Your task to perform on an android device: What's on my calendar tomorrow? Image 0: 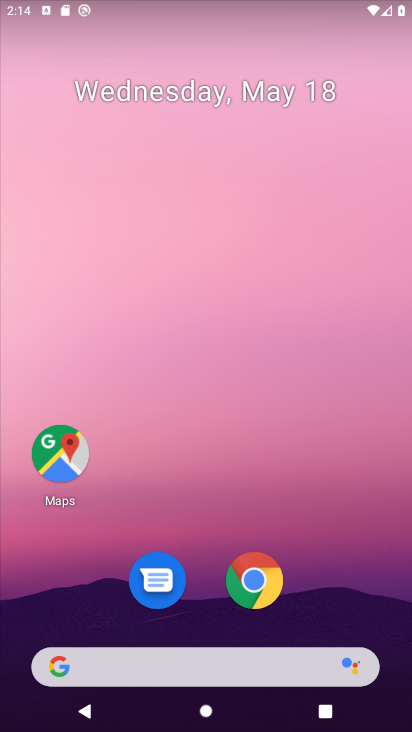
Step 0: click (376, 25)
Your task to perform on an android device: What's on my calendar tomorrow? Image 1: 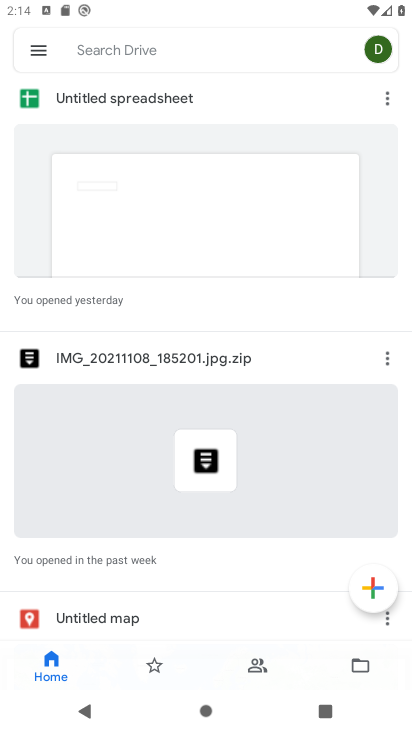
Step 1: drag from (245, 595) to (304, 117)
Your task to perform on an android device: What's on my calendar tomorrow? Image 2: 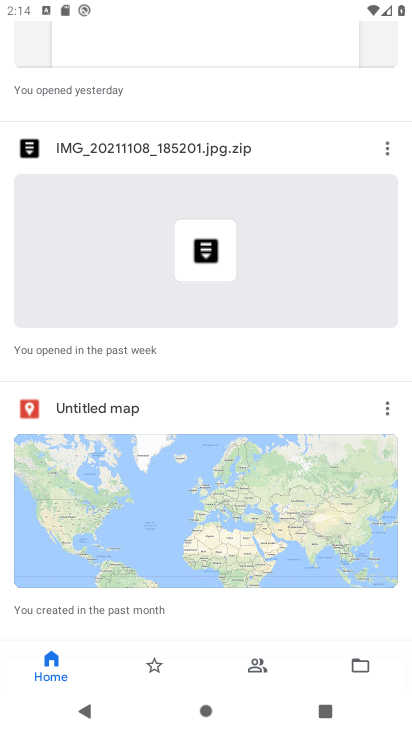
Step 2: drag from (259, 496) to (276, 104)
Your task to perform on an android device: What's on my calendar tomorrow? Image 3: 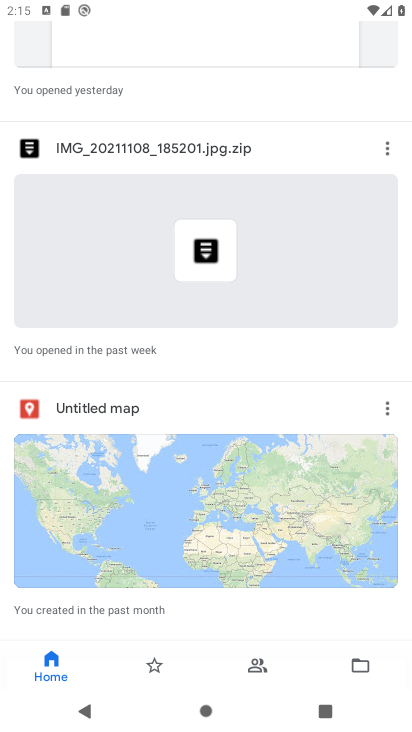
Step 3: press home button
Your task to perform on an android device: What's on my calendar tomorrow? Image 4: 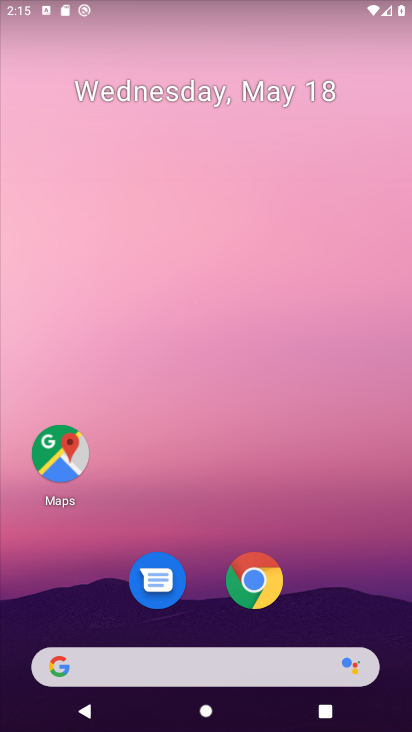
Step 4: drag from (222, 623) to (243, 203)
Your task to perform on an android device: What's on my calendar tomorrow? Image 5: 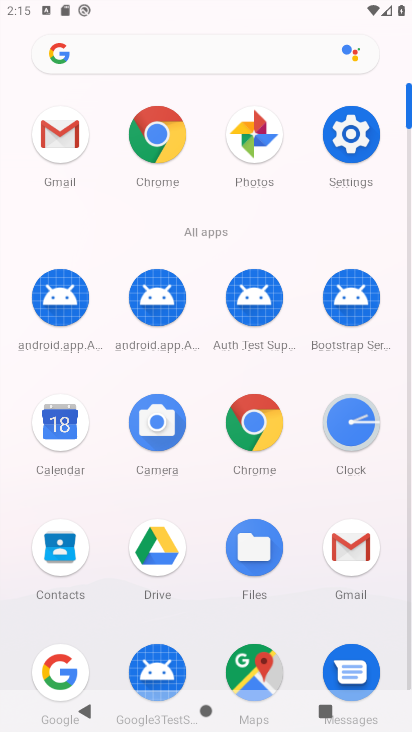
Step 5: click (64, 409)
Your task to perform on an android device: What's on my calendar tomorrow? Image 6: 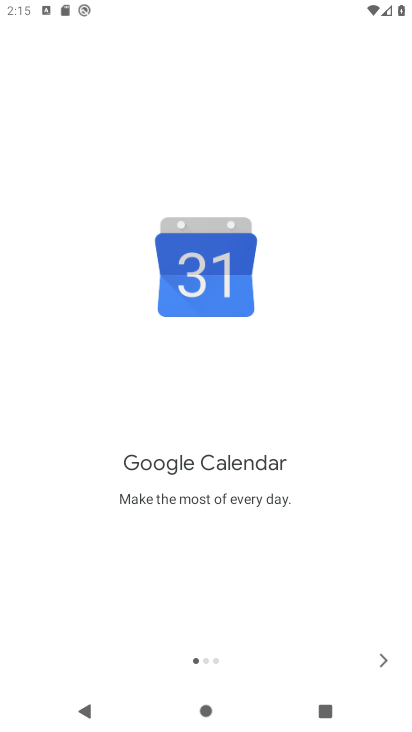
Step 6: click (383, 657)
Your task to perform on an android device: What's on my calendar tomorrow? Image 7: 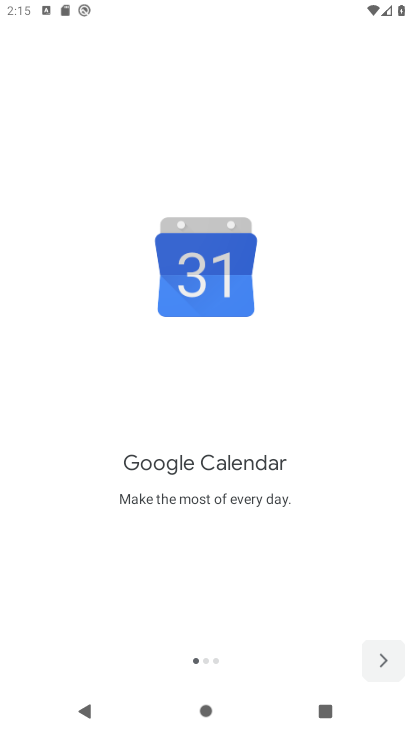
Step 7: click (383, 657)
Your task to perform on an android device: What's on my calendar tomorrow? Image 8: 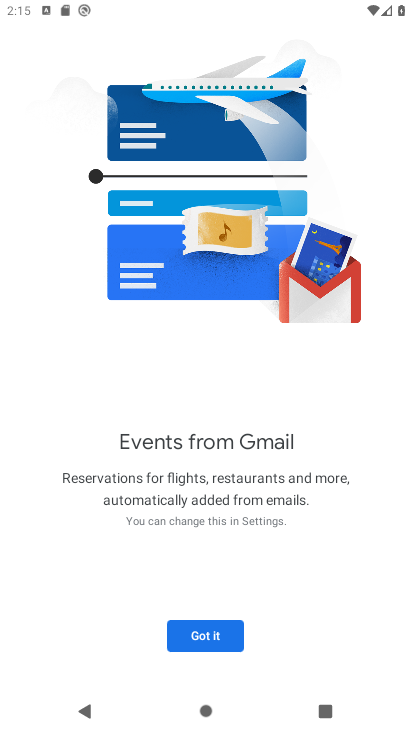
Step 8: click (383, 657)
Your task to perform on an android device: What's on my calendar tomorrow? Image 9: 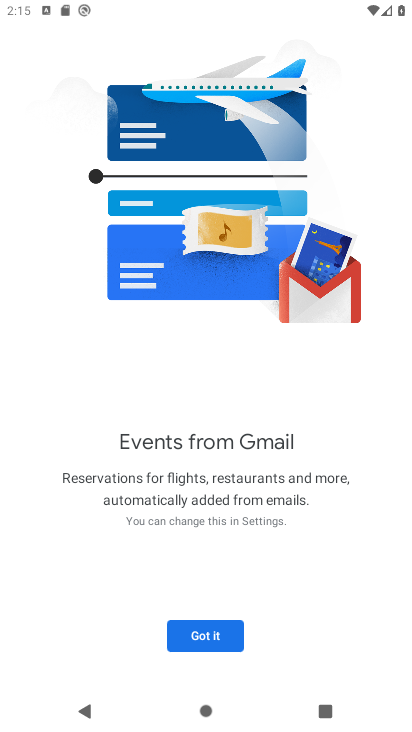
Step 9: click (200, 651)
Your task to perform on an android device: What's on my calendar tomorrow? Image 10: 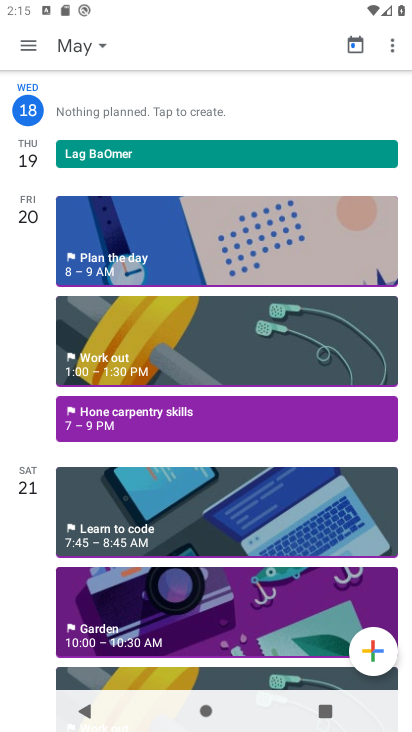
Step 10: click (87, 40)
Your task to perform on an android device: What's on my calendar tomorrow? Image 11: 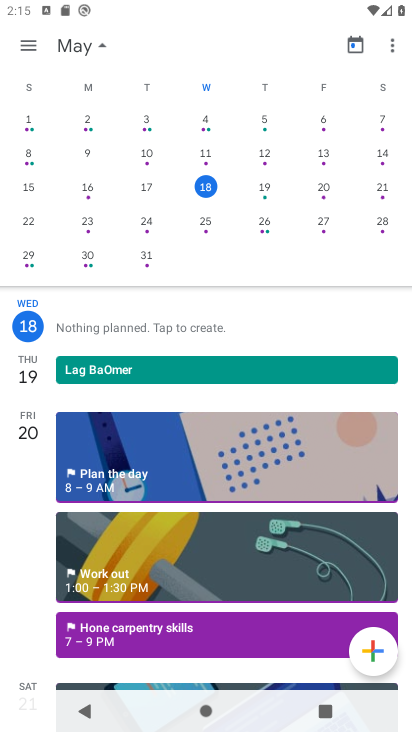
Step 11: click (270, 193)
Your task to perform on an android device: What's on my calendar tomorrow? Image 12: 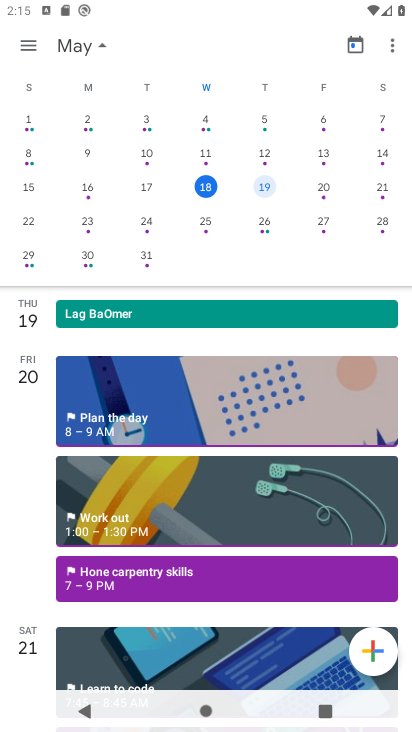
Step 12: task complete